Your task to perform on an android device: turn on data saver in the chrome app Image 0: 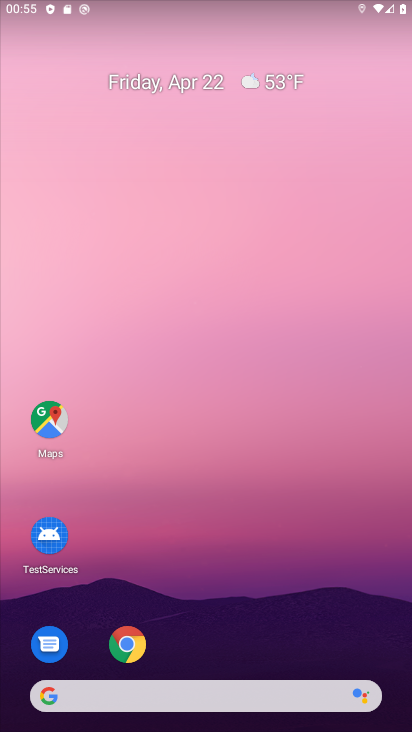
Step 0: click (122, 645)
Your task to perform on an android device: turn on data saver in the chrome app Image 1: 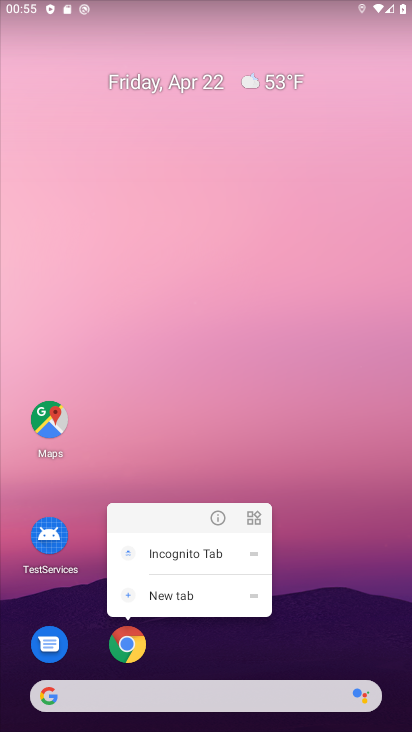
Step 1: drag from (320, 618) to (353, 124)
Your task to perform on an android device: turn on data saver in the chrome app Image 2: 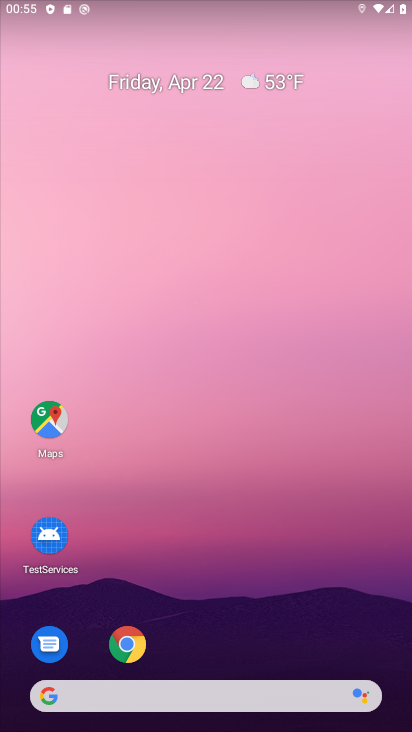
Step 2: drag from (255, 589) to (323, 154)
Your task to perform on an android device: turn on data saver in the chrome app Image 3: 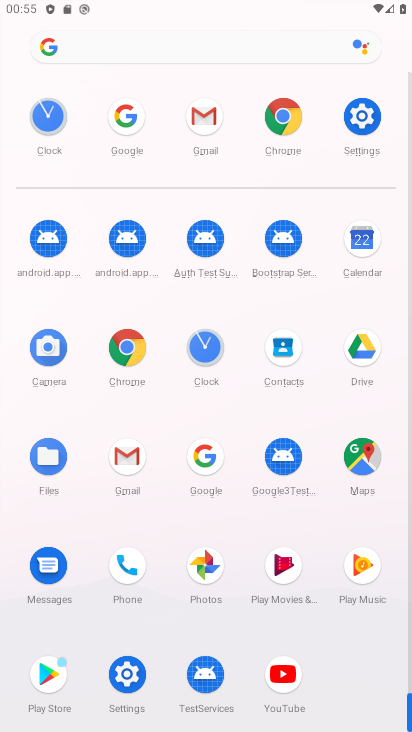
Step 3: click (124, 343)
Your task to perform on an android device: turn on data saver in the chrome app Image 4: 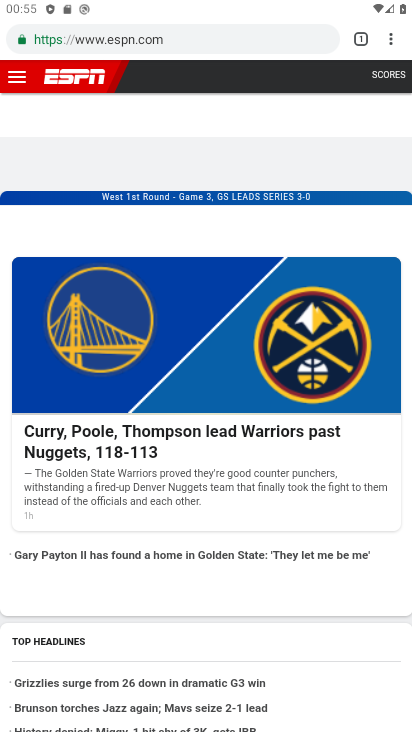
Step 4: click (393, 34)
Your task to perform on an android device: turn on data saver in the chrome app Image 5: 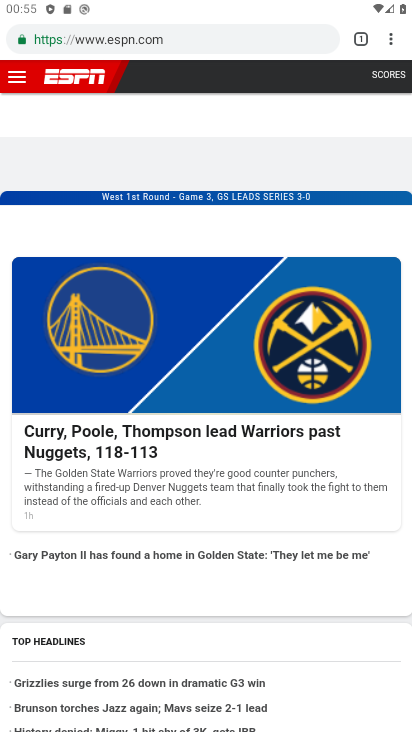
Step 5: click (388, 40)
Your task to perform on an android device: turn on data saver in the chrome app Image 6: 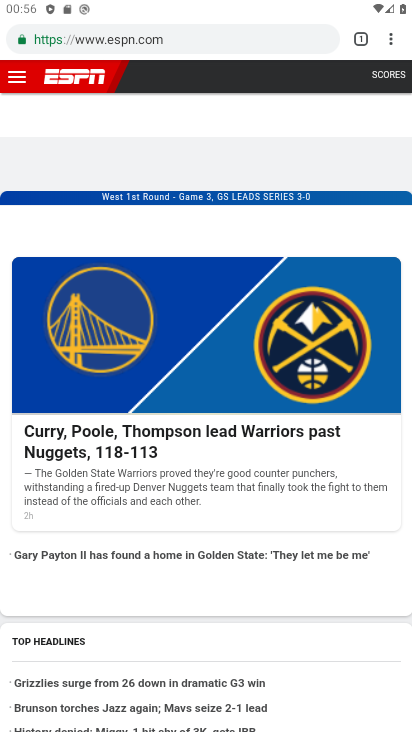
Step 6: drag from (393, 39) to (263, 512)
Your task to perform on an android device: turn on data saver in the chrome app Image 7: 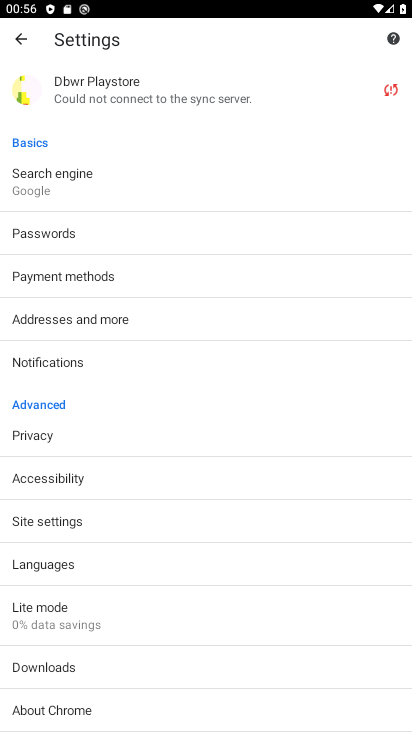
Step 7: drag from (120, 672) to (172, 486)
Your task to perform on an android device: turn on data saver in the chrome app Image 8: 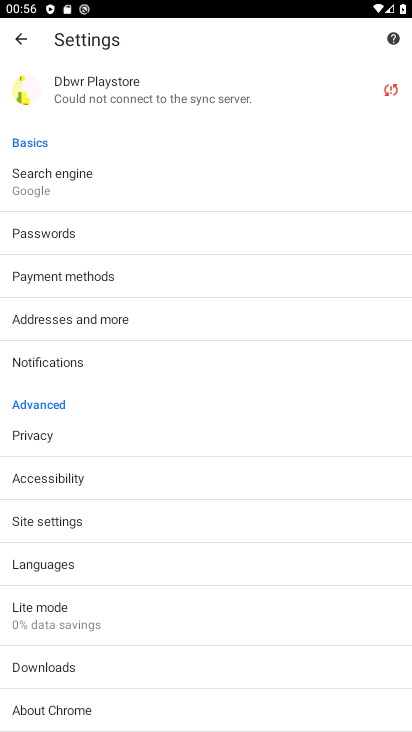
Step 8: click (59, 613)
Your task to perform on an android device: turn on data saver in the chrome app Image 9: 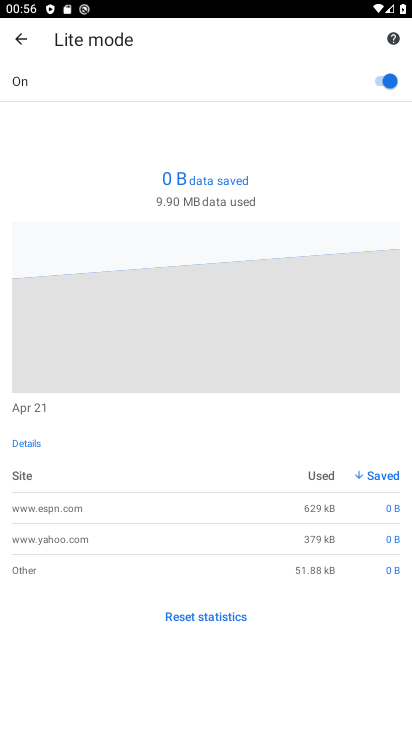
Step 9: task complete